Your task to perform on an android device: find photos in the google photos app Image 0: 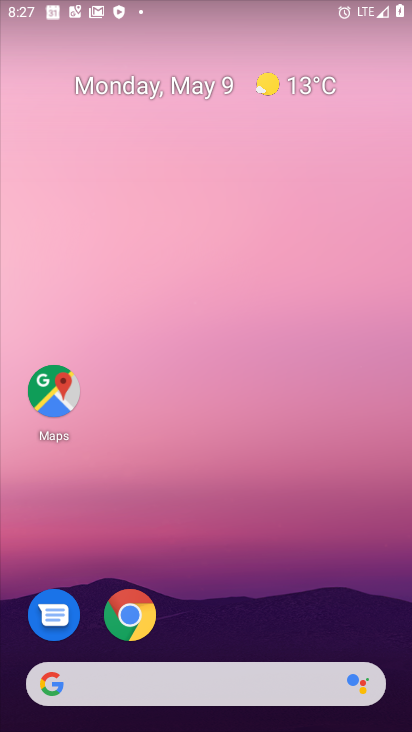
Step 0: task complete